Your task to perform on an android device: Open the stopwatch Image 0: 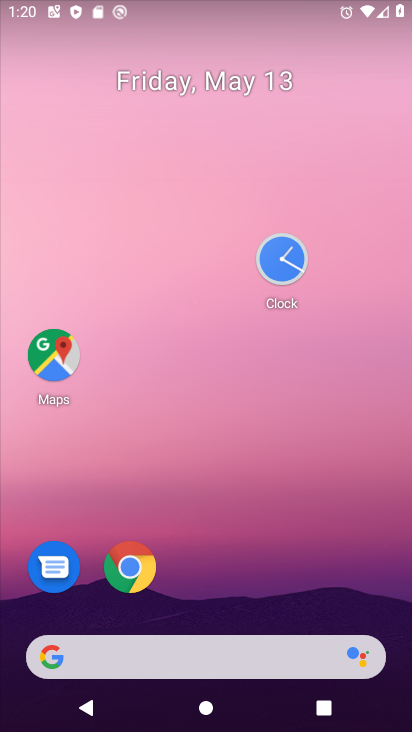
Step 0: click (274, 241)
Your task to perform on an android device: Open the stopwatch Image 1: 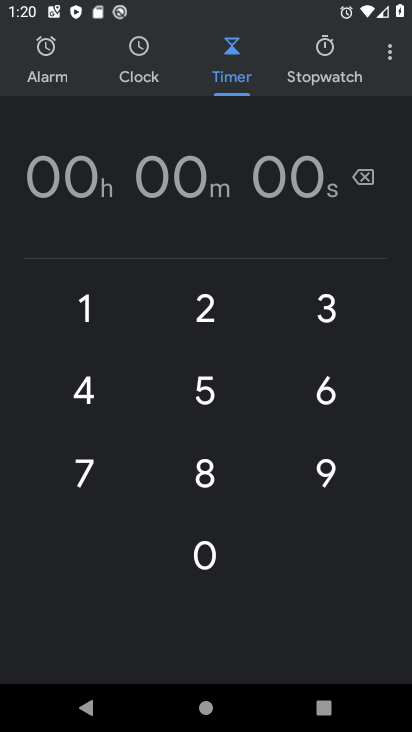
Step 1: click (304, 59)
Your task to perform on an android device: Open the stopwatch Image 2: 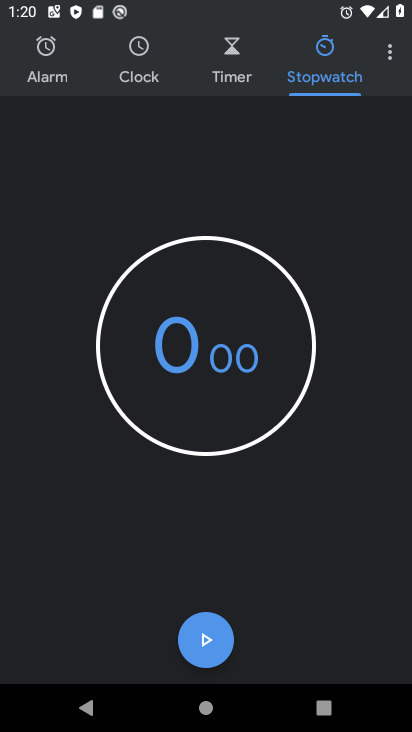
Step 2: task complete